Your task to perform on an android device: Open Chrome and go to settings Image 0: 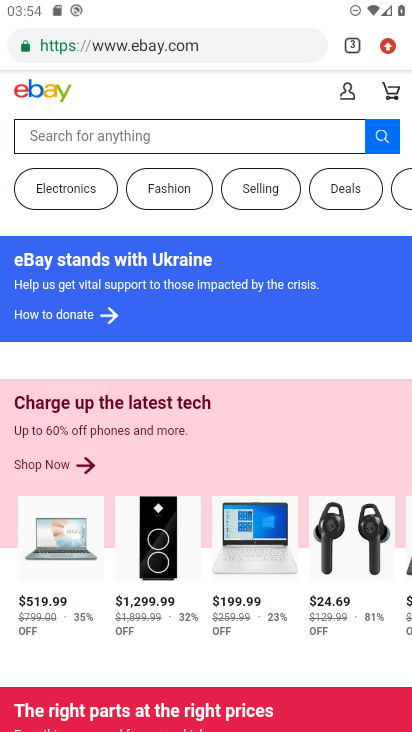
Step 0: click (387, 46)
Your task to perform on an android device: Open Chrome and go to settings Image 1: 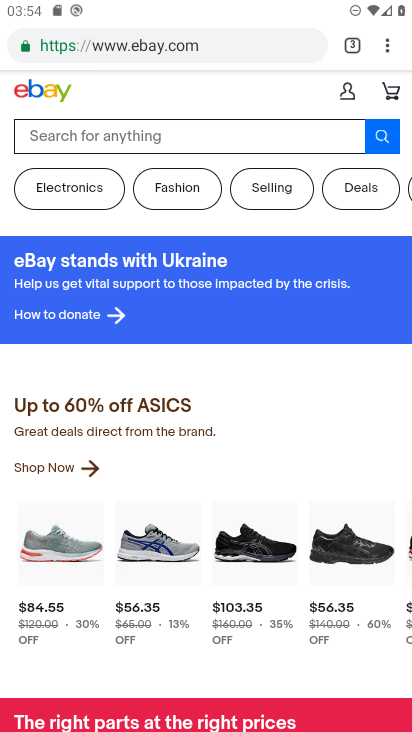
Step 1: click (387, 46)
Your task to perform on an android device: Open Chrome and go to settings Image 2: 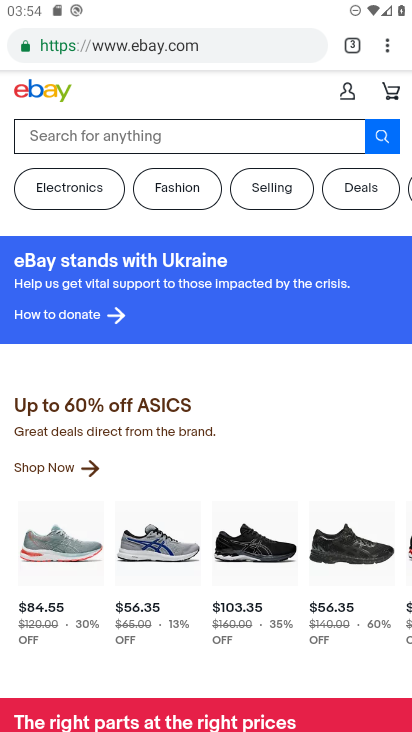
Step 2: click (383, 57)
Your task to perform on an android device: Open Chrome and go to settings Image 3: 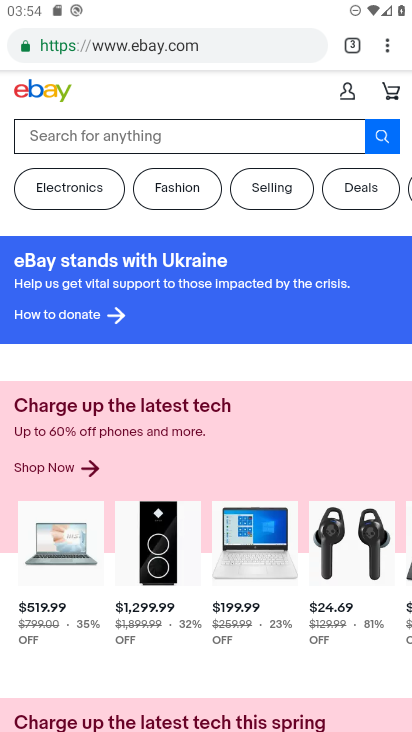
Step 3: click (382, 55)
Your task to perform on an android device: Open Chrome and go to settings Image 4: 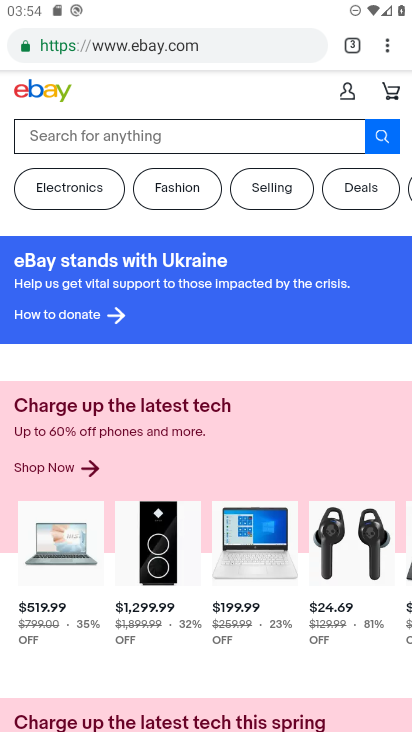
Step 4: click (380, 44)
Your task to perform on an android device: Open Chrome and go to settings Image 5: 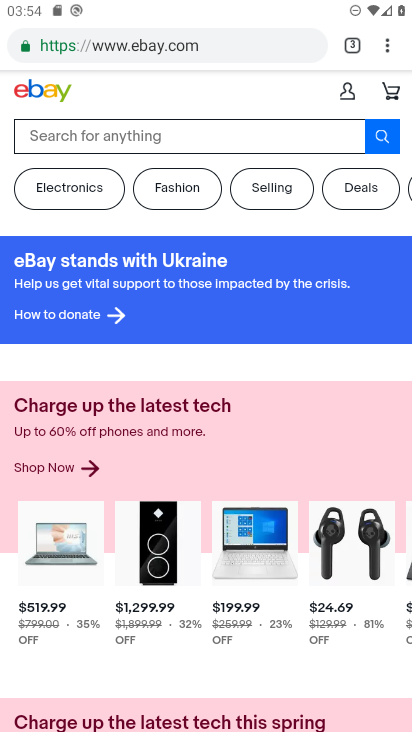
Step 5: click (394, 42)
Your task to perform on an android device: Open Chrome and go to settings Image 6: 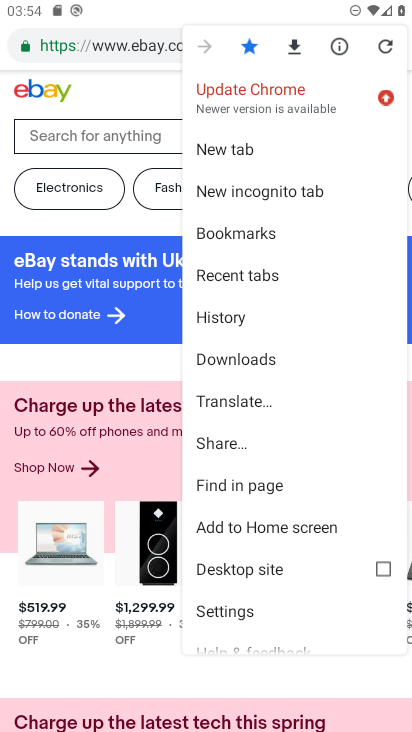
Step 6: click (230, 628)
Your task to perform on an android device: Open Chrome and go to settings Image 7: 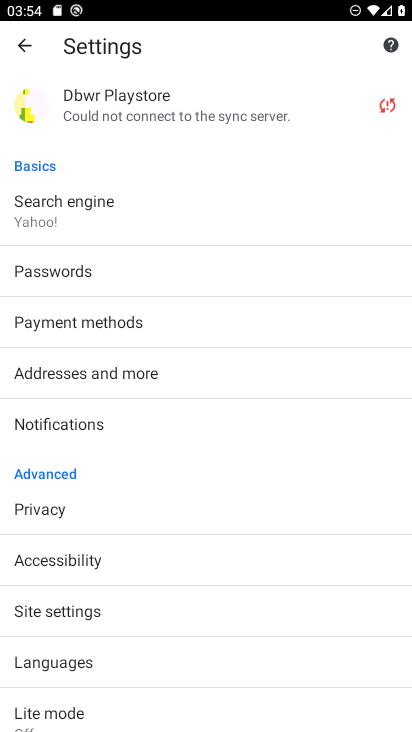
Step 7: task complete